Your task to perform on an android device: Open Google Chrome and click the shortcut for Amazon.com Image 0: 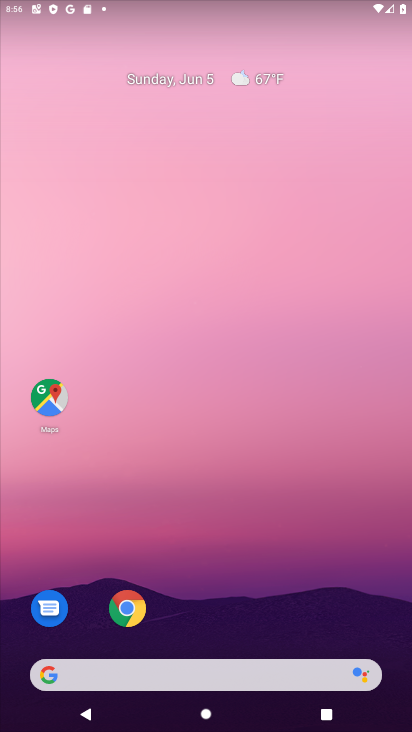
Step 0: click (128, 617)
Your task to perform on an android device: Open Google Chrome and click the shortcut for Amazon.com Image 1: 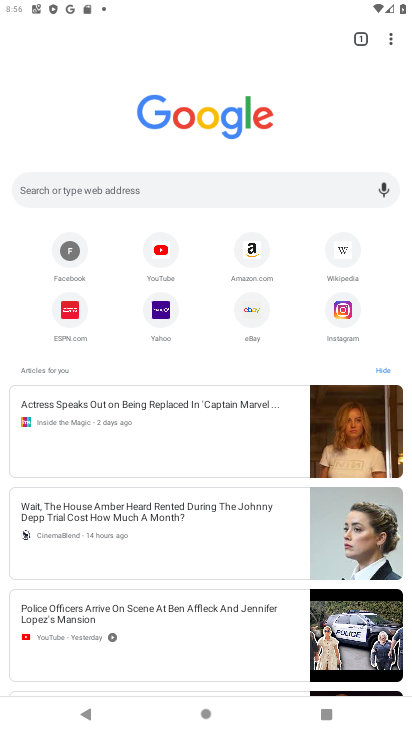
Step 1: click (253, 243)
Your task to perform on an android device: Open Google Chrome and click the shortcut for Amazon.com Image 2: 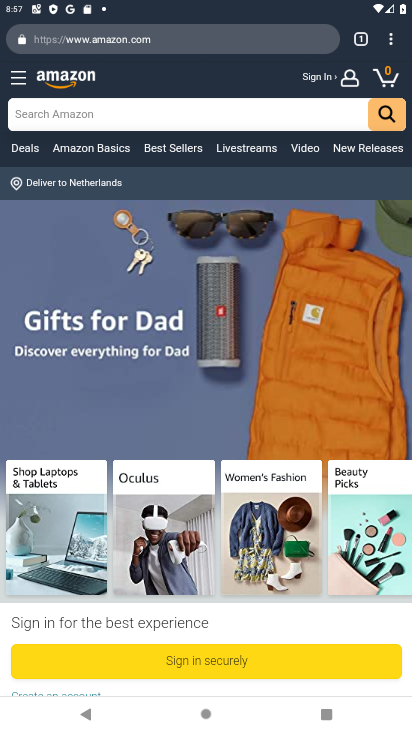
Step 2: task complete